Your task to perform on an android device: turn on the 12-hour format for clock Image 0: 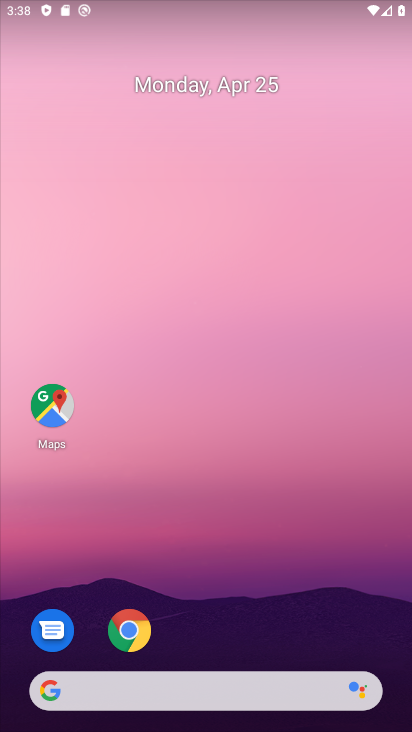
Step 0: drag from (315, 336) to (293, 19)
Your task to perform on an android device: turn on the 12-hour format for clock Image 1: 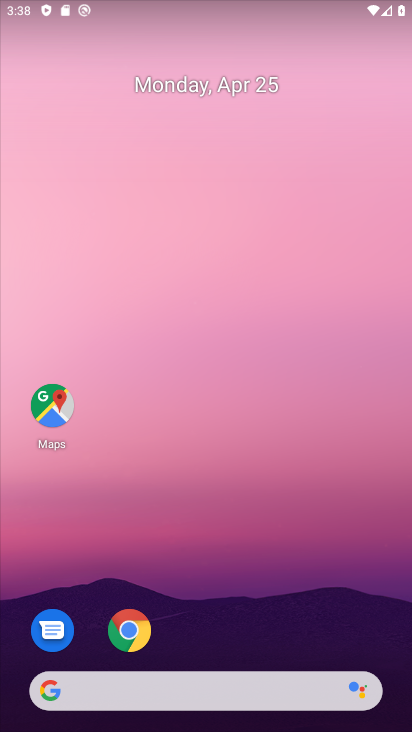
Step 1: drag from (335, 473) to (333, 159)
Your task to perform on an android device: turn on the 12-hour format for clock Image 2: 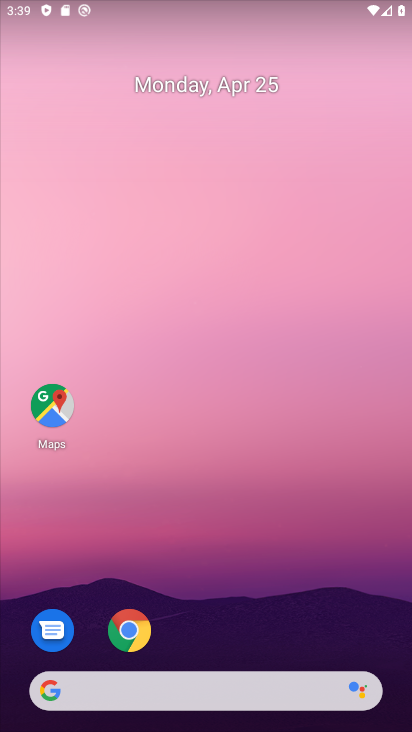
Step 2: drag from (276, 307) to (291, 107)
Your task to perform on an android device: turn on the 12-hour format for clock Image 3: 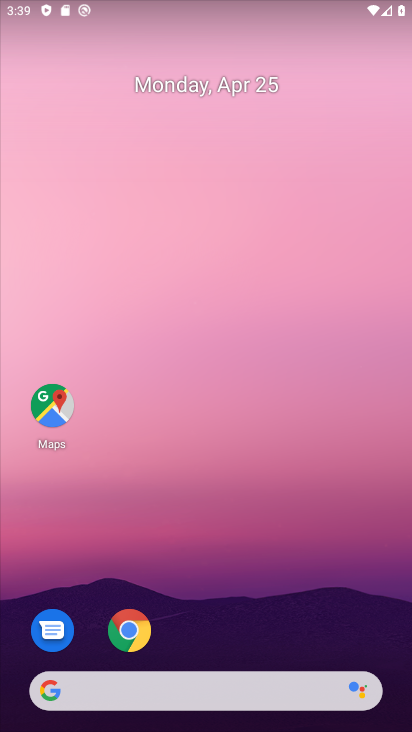
Step 3: drag from (260, 590) to (298, 55)
Your task to perform on an android device: turn on the 12-hour format for clock Image 4: 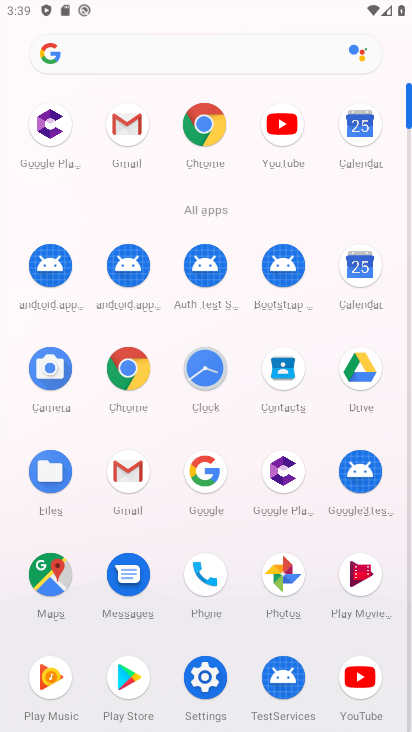
Step 4: click (210, 375)
Your task to perform on an android device: turn on the 12-hour format for clock Image 5: 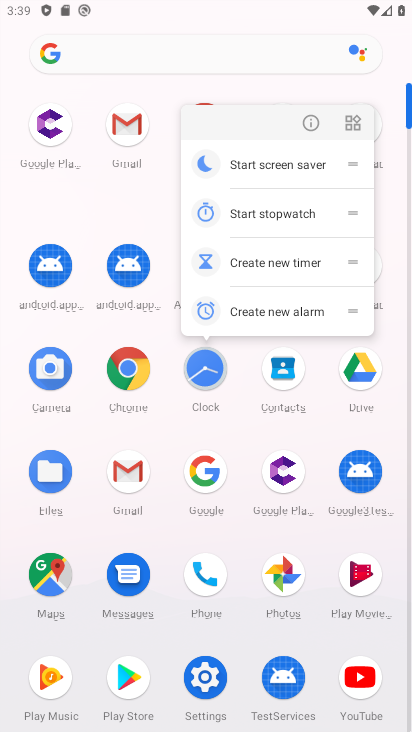
Step 5: click (204, 368)
Your task to perform on an android device: turn on the 12-hour format for clock Image 6: 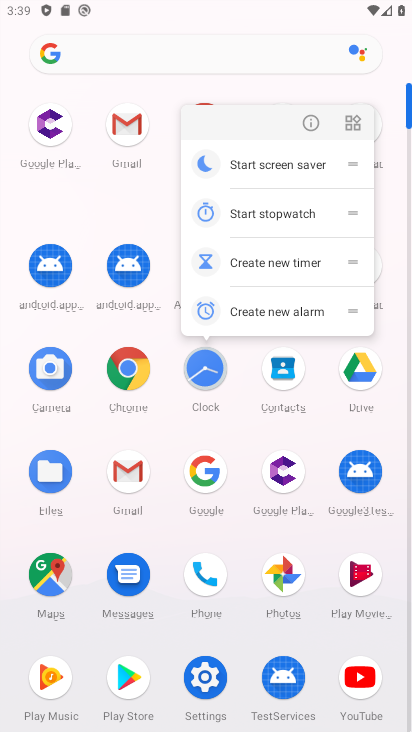
Step 6: click (204, 368)
Your task to perform on an android device: turn on the 12-hour format for clock Image 7: 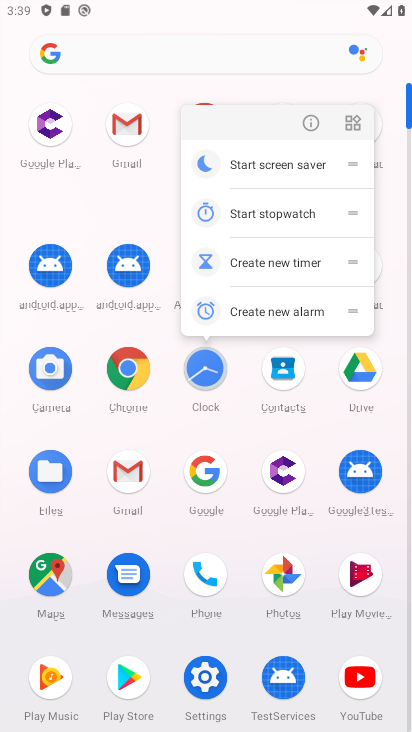
Step 7: click (200, 360)
Your task to perform on an android device: turn on the 12-hour format for clock Image 8: 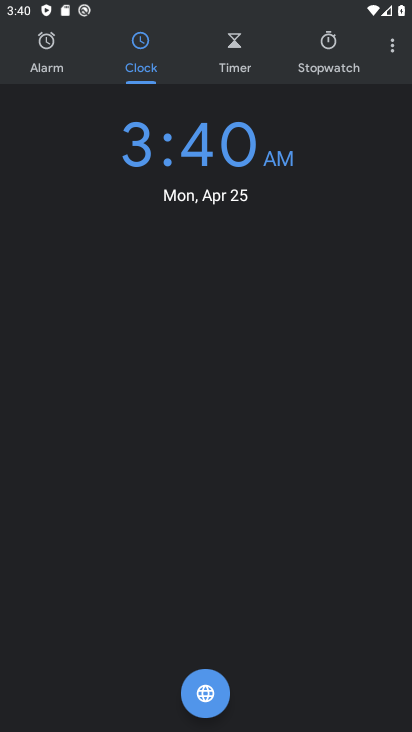
Step 8: click (397, 49)
Your task to perform on an android device: turn on the 12-hour format for clock Image 9: 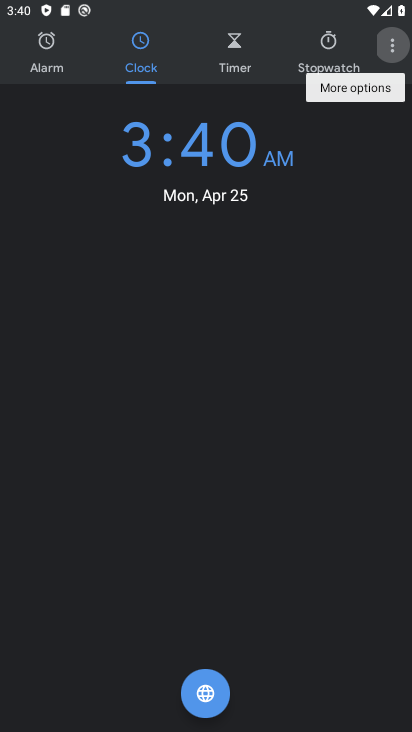
Step 9: click (395, 49)
Your task to perform on an android device: turn on the 12-hour format for clock Image 10: 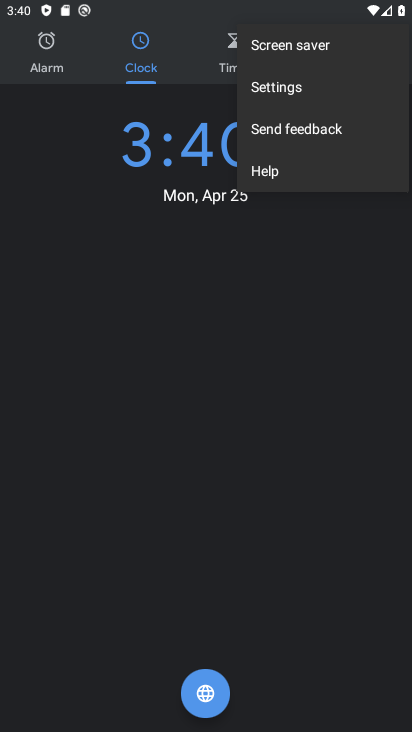
Step 10: click (283, 97)
Your task to perform on an android device: turn on the 12-hour format for clock Image 11: 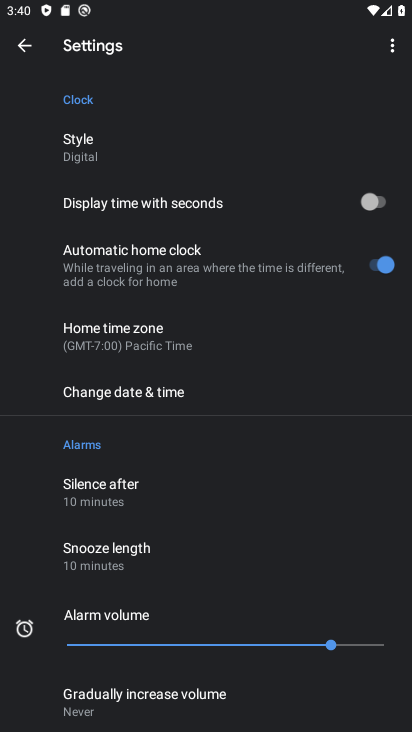
Step 11: click (127, 384)
Your task to perform on an android device: turn on the 12-hour format for clock Image 12: 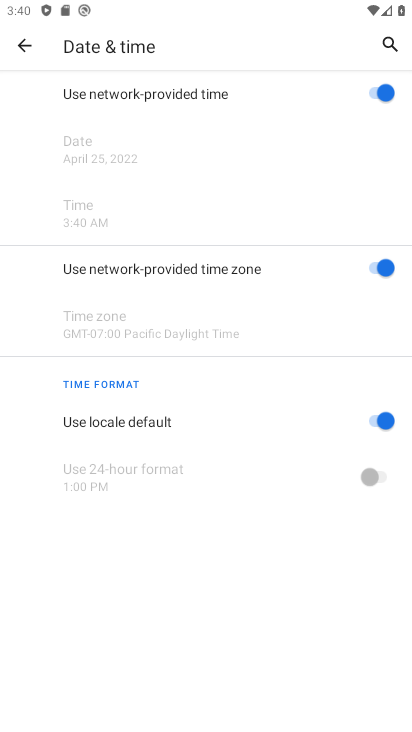
Step 12: click (377, 419)
Your task to perform on an android device: turn on the 12-hour format for clock Image 13: 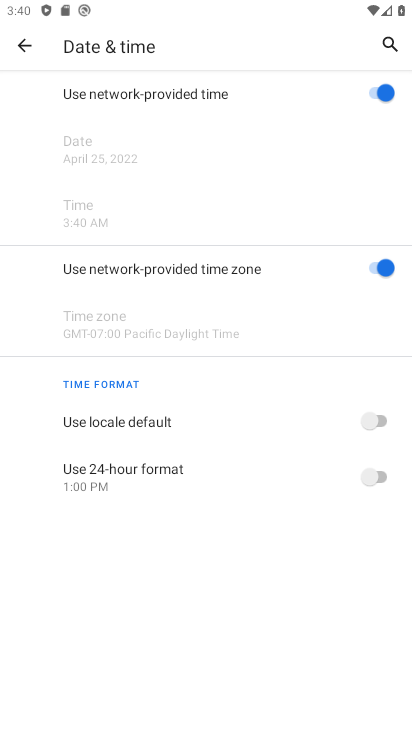
Step 13: task complete